Your task to perform on an android device: open a bookmark in the chrome app Image 0: 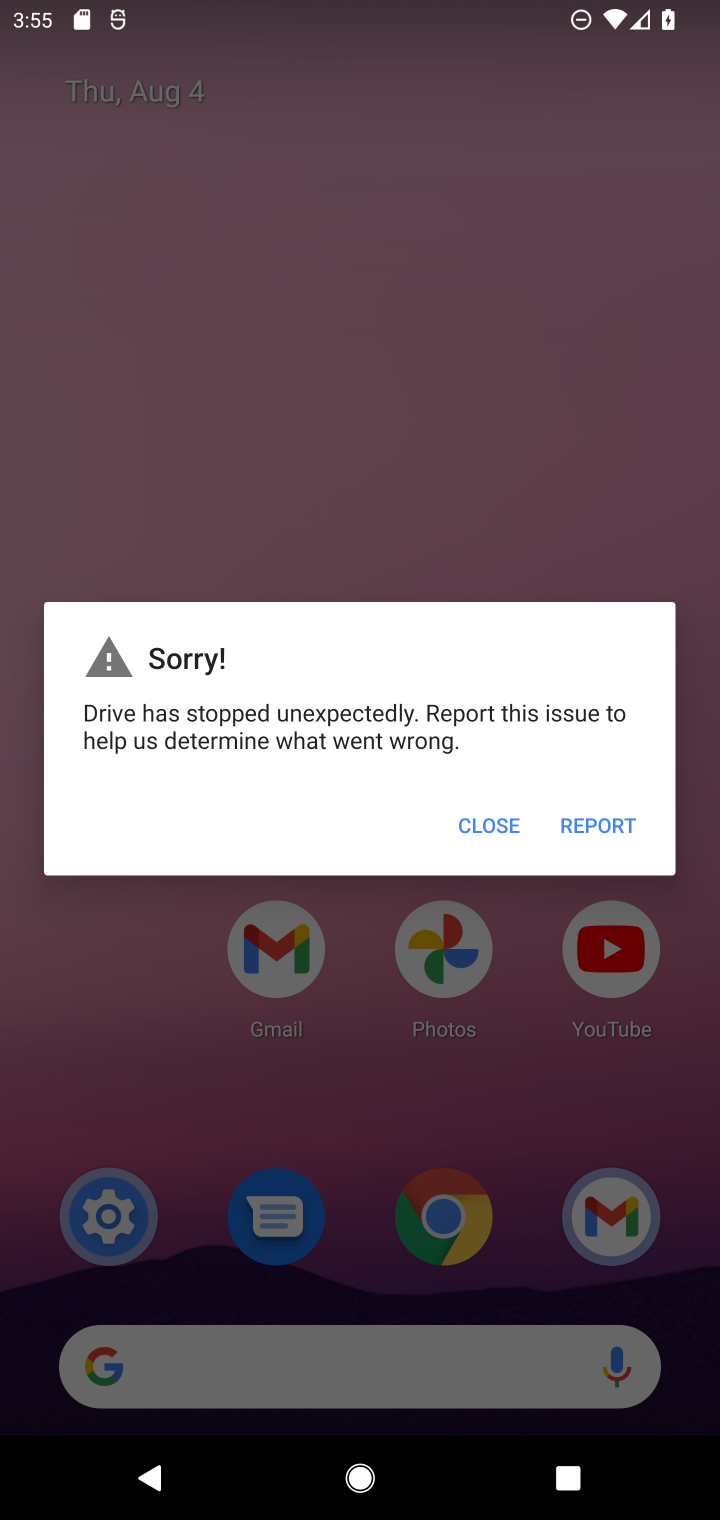
Step 0: click (492, 828)
Your task to perform on an android device: open a bookmark in the chrome app Image 1: 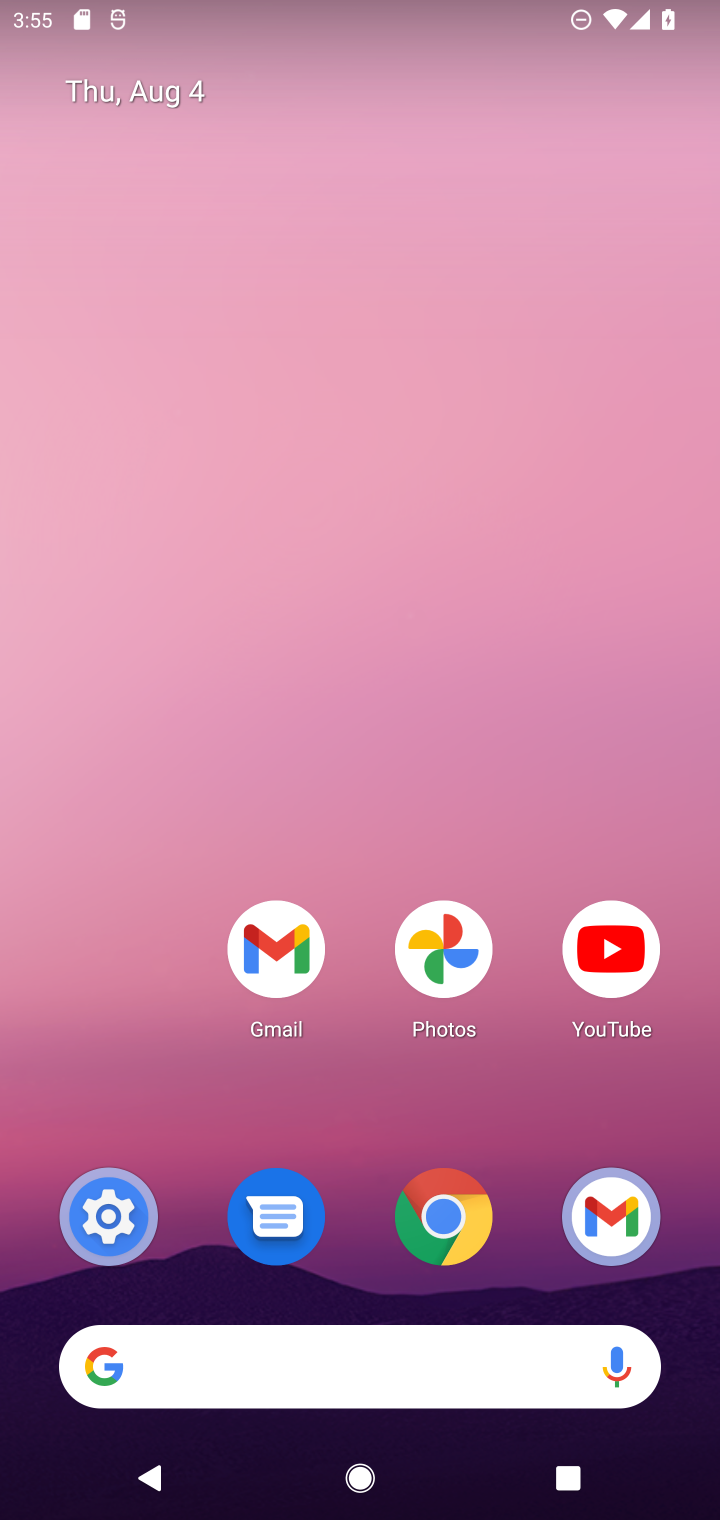
Step 1: click (448, 1234)
Your task to perform on an android device: open a bookmark in the chrome app Image 2: 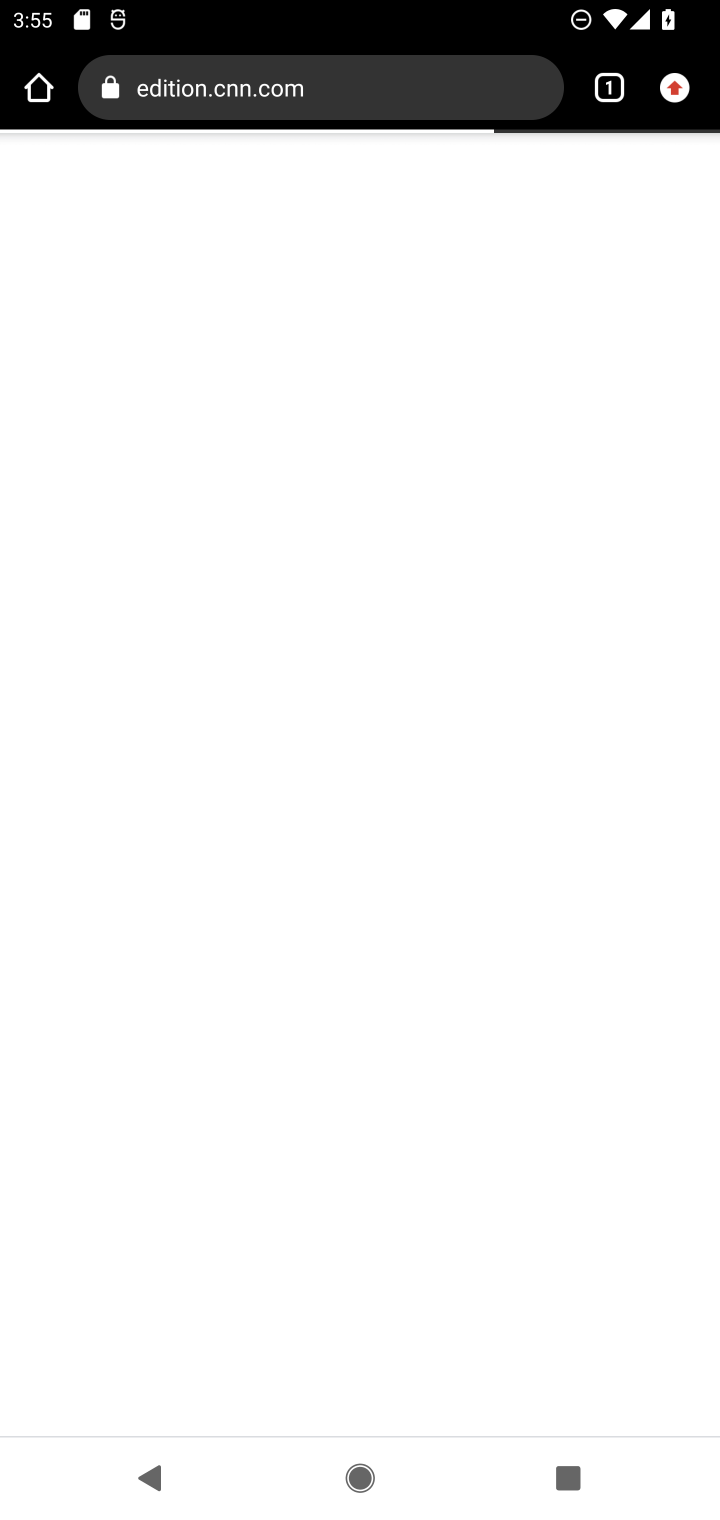
Step 2: drag from (676, 100) to (435, 590)
Your task to perform on an android device: open a bookmark in the chrome app Image 3: 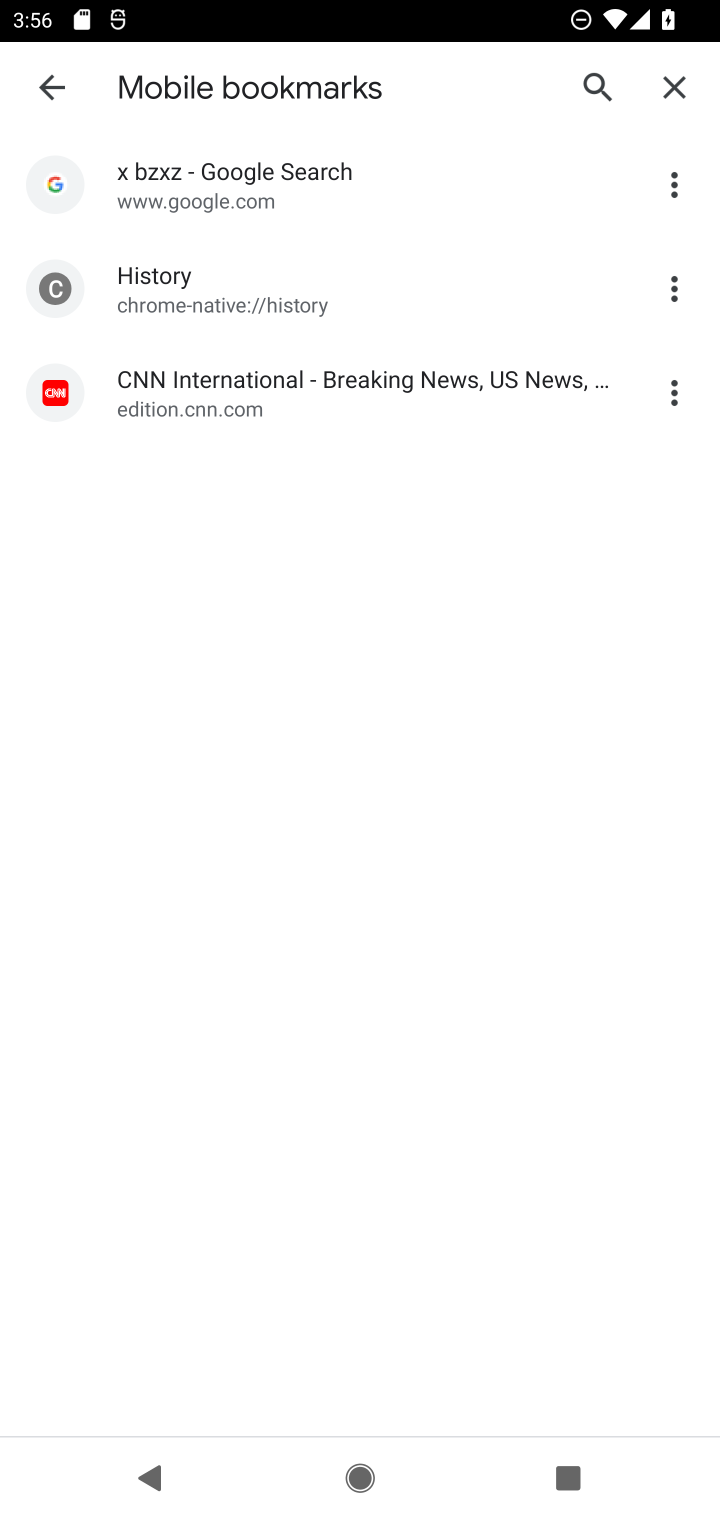
Step 3: click (229, 393)
Your task to perform on an android device: open a bookmark in the chrome app Image 4: 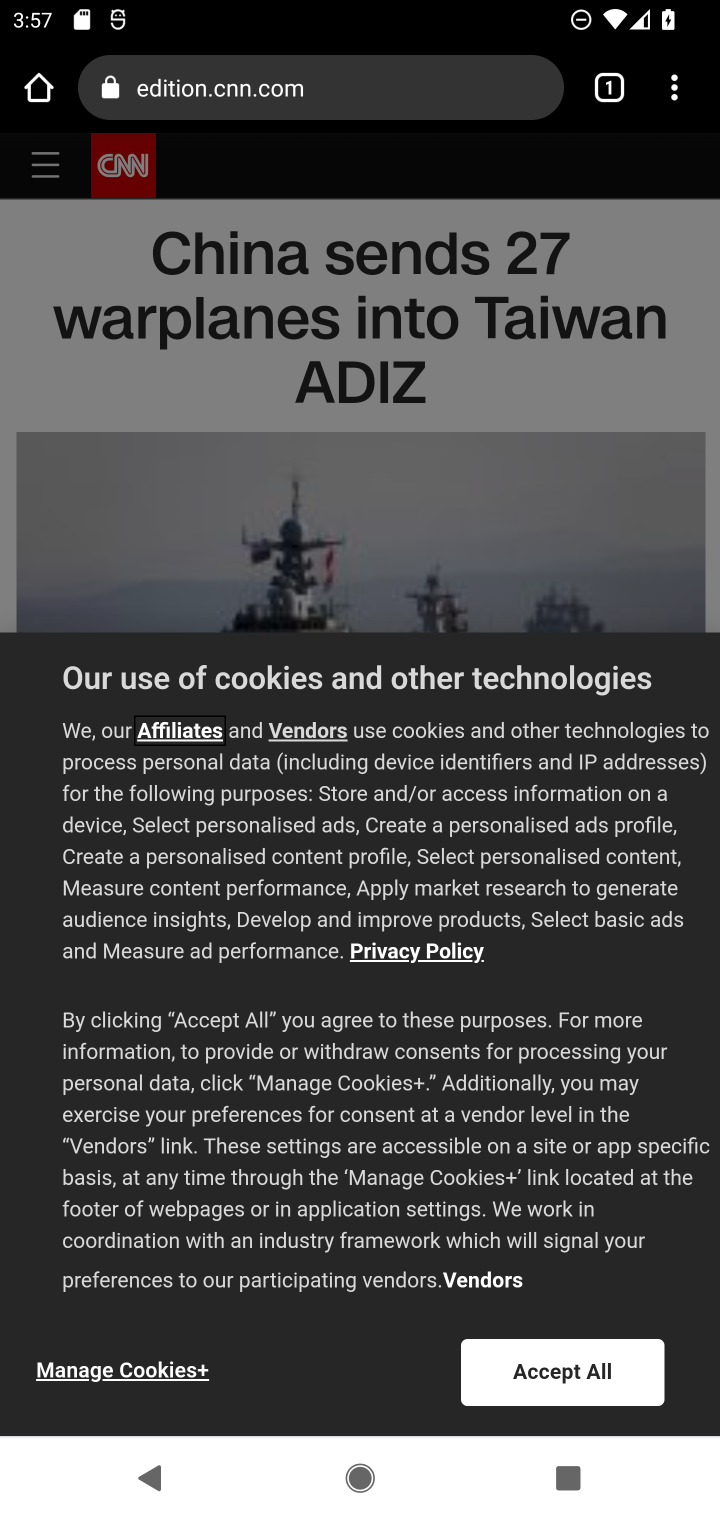
Step 4: task complete